Your task to perform on an android device: check data usage Image 0: 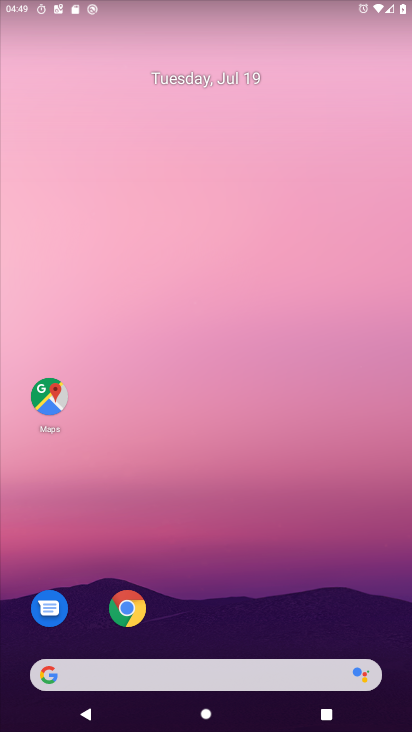
Step 0: drag from (174, 679) to (410, 139)
Your task to perform on an android device: check data usage Image 1: 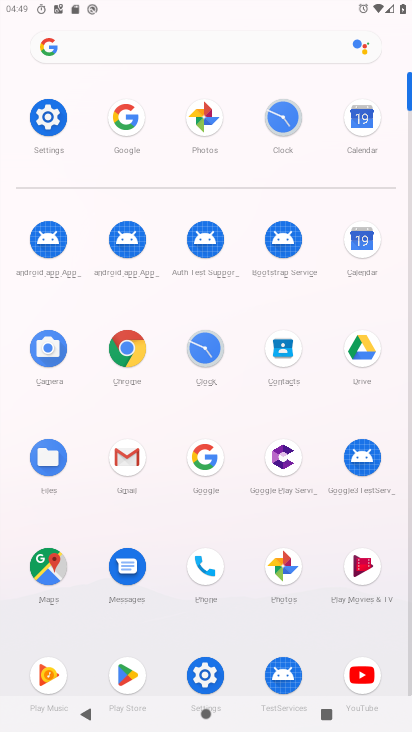
Step 1: click (47, 116)
Your task to perform on an android device: check data usage Image 2: 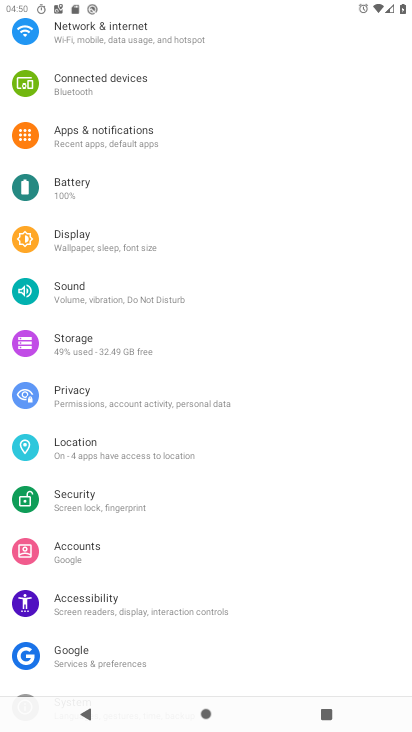
Step 2: click (114, 37)
Your task to perform on an android device: check data usage Image 3: 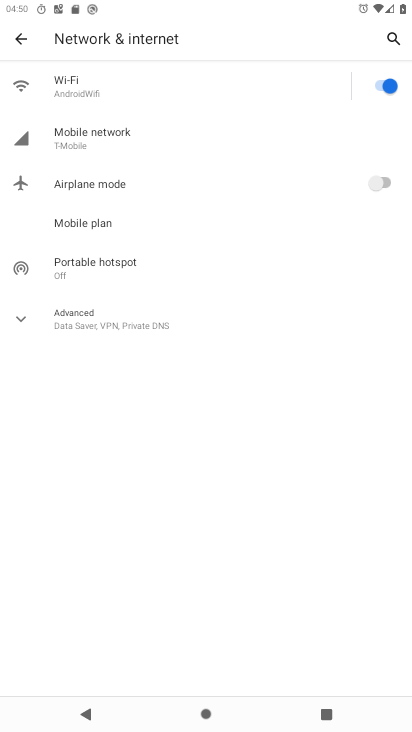
Step 3: click (106, 137)
Your task to perform on an android device: check data usage Image 4: 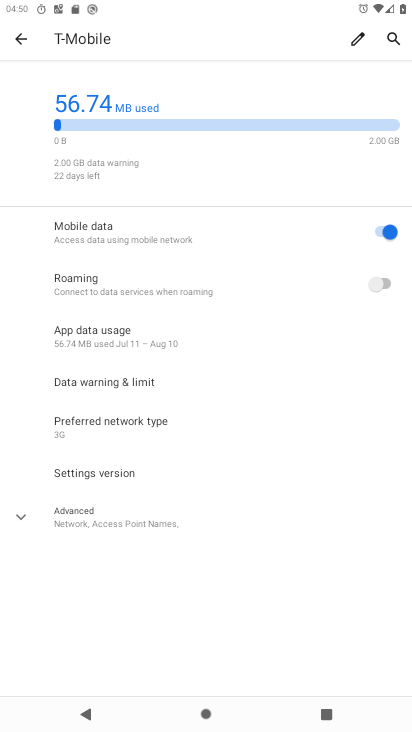
Step 4: task complete